Your task to perform on an android device: toggle sleep mode Image 0: 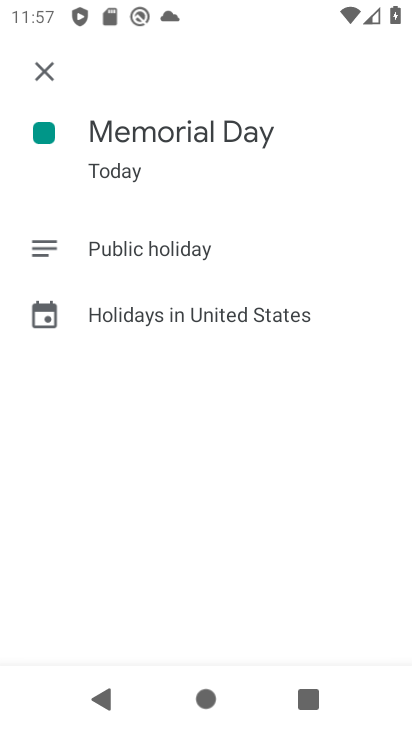
Step 0: press home button
Your task to perform on an android device: toggle sleep mode Image 1: 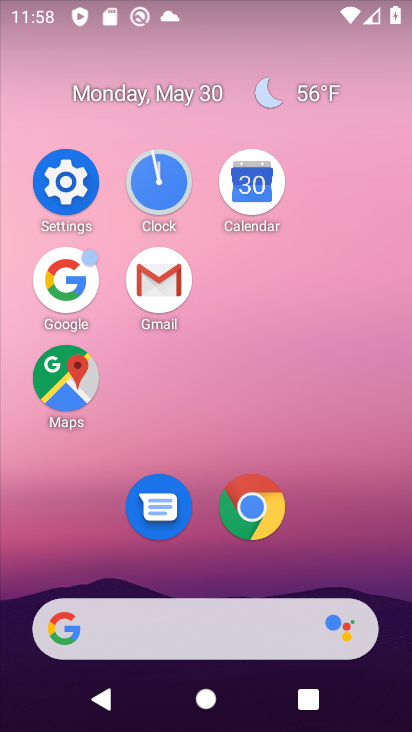
Step 1: click (72, 181)
Your task to perform on an android device: toggle sleep mode Image 2: 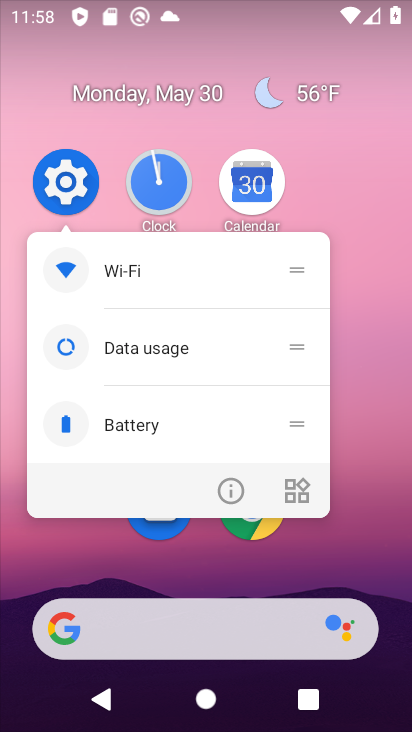
Step 2: click (82, 190)
Your task to perform on an android device: toggle sleep mode Image 3: 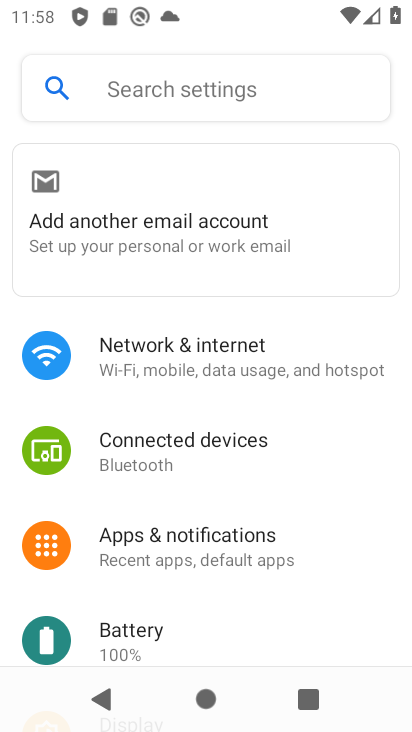
Step 3: drag from (265, 537) to (261, 178)
Your task to perform on an android device: toggle sleep mode Image 4: 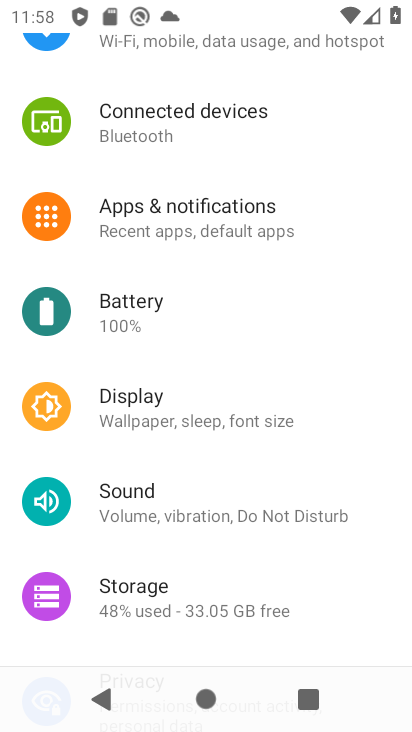
Step 4: click (213, 398)
Your task to perform on an android device: toggle sleep mode Image 5: 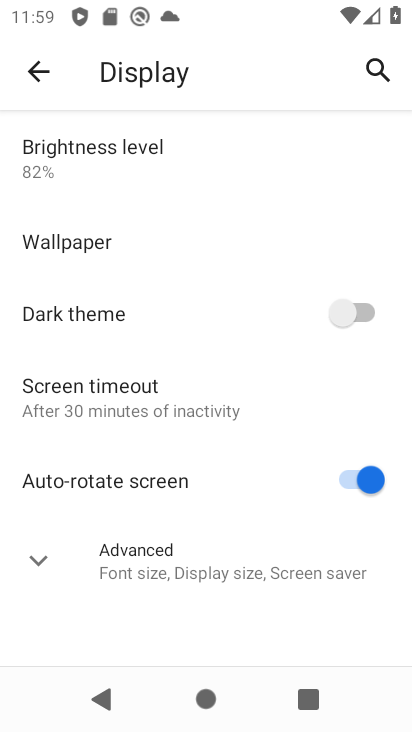
Step 5: click (169, 411)
Your task to perform on an android device: toggle sleep mode Image 6: 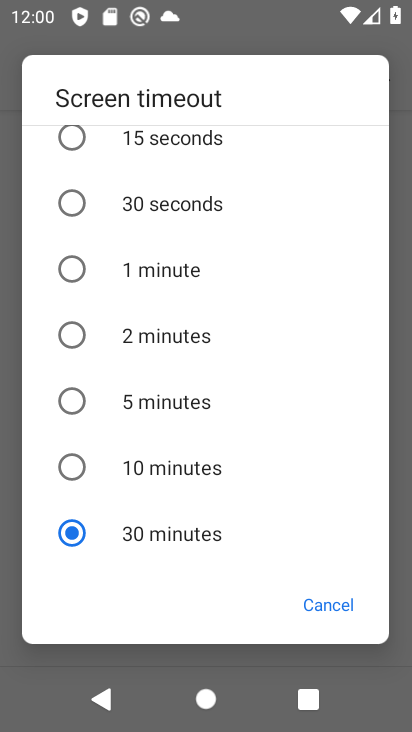
Step 6: click (167, 413)
Your task to perform on an android device: toggle sleep mode Image 7: 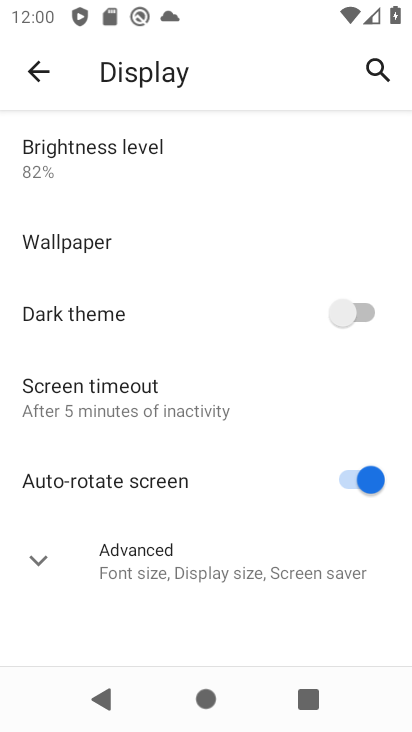
Step 7: task complete